Your task to perform on an android device: find which apps use the phone's location Image 0: 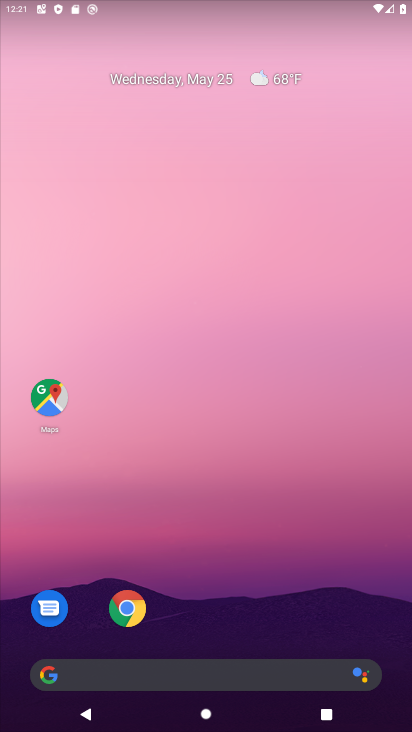
Step 0: drag from (281, 601) to (330, 25)
Your task to perform on an android device: find which apps use the phone's location Image 1: 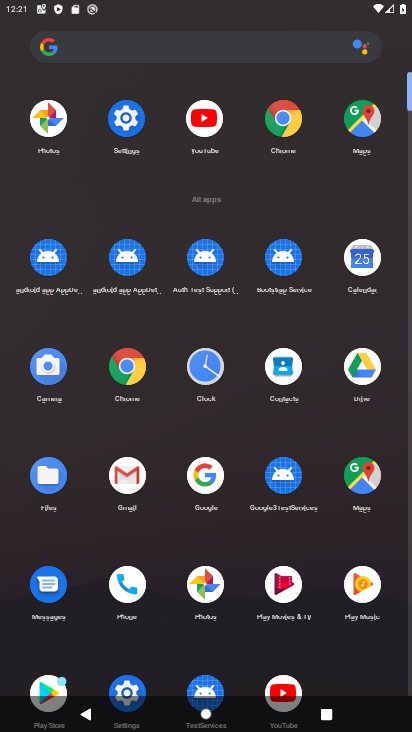
Step 1: click (139, 684)
Your task to perform on an android device: find which apps use the phone's location Image 2: 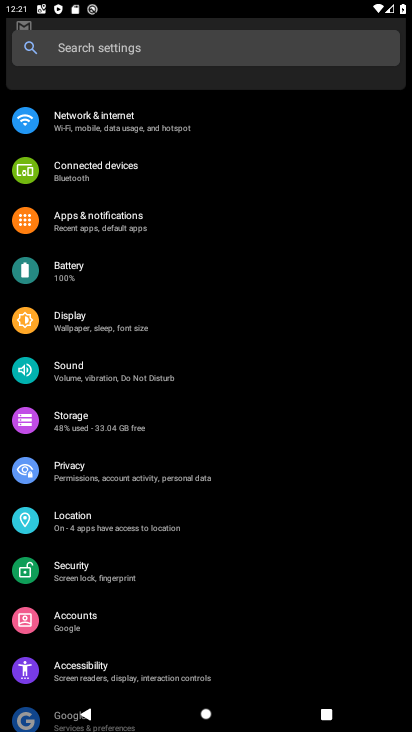
Step 2: click (149, 525)
Your task to perform on an android device: find which apps use the phone's location Image 3: 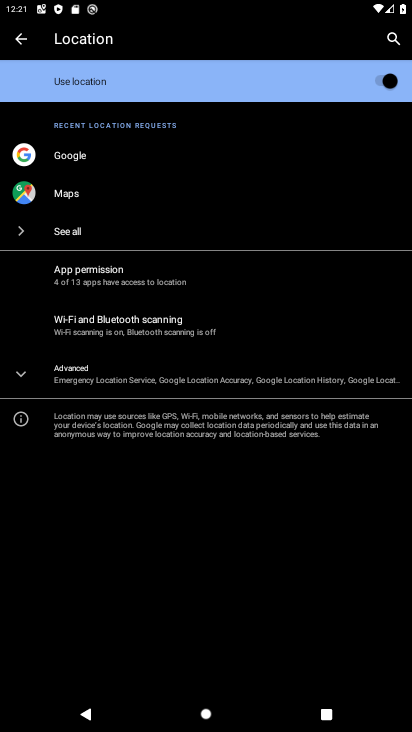
Step 3: click (199, 284)
Your task to perform on an android device: find which apps use the phone's location Image 4: 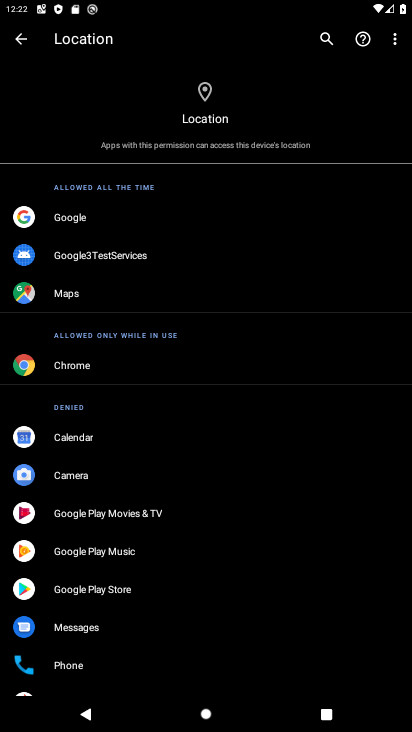
Step 4: task complete